Your task to perform on an android device: toggle sleep mode Image 0: 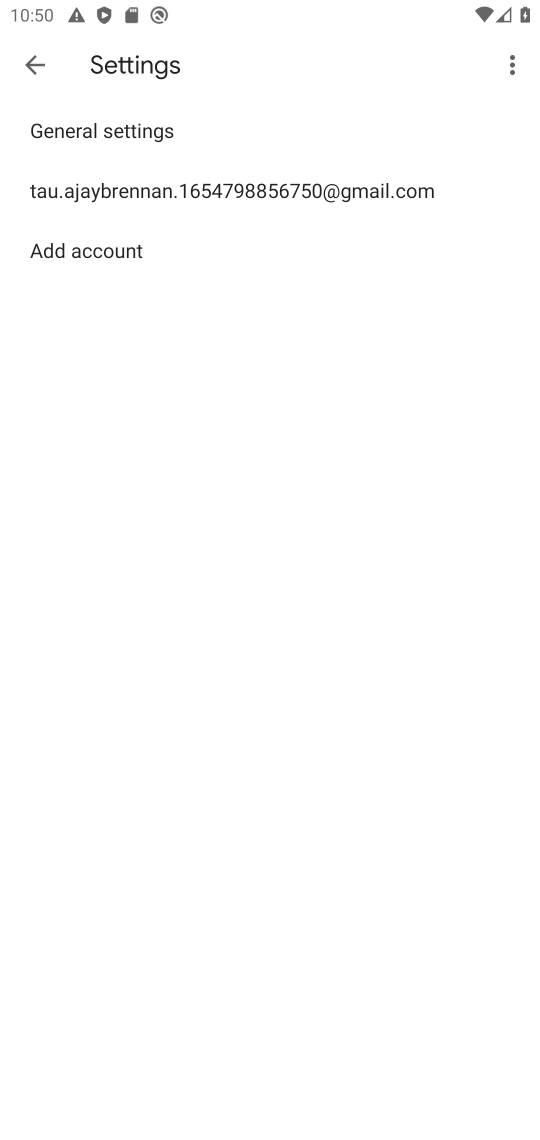
Step 0: press home button
Your task to perform on an android device: toggle sleep mode Image 1: 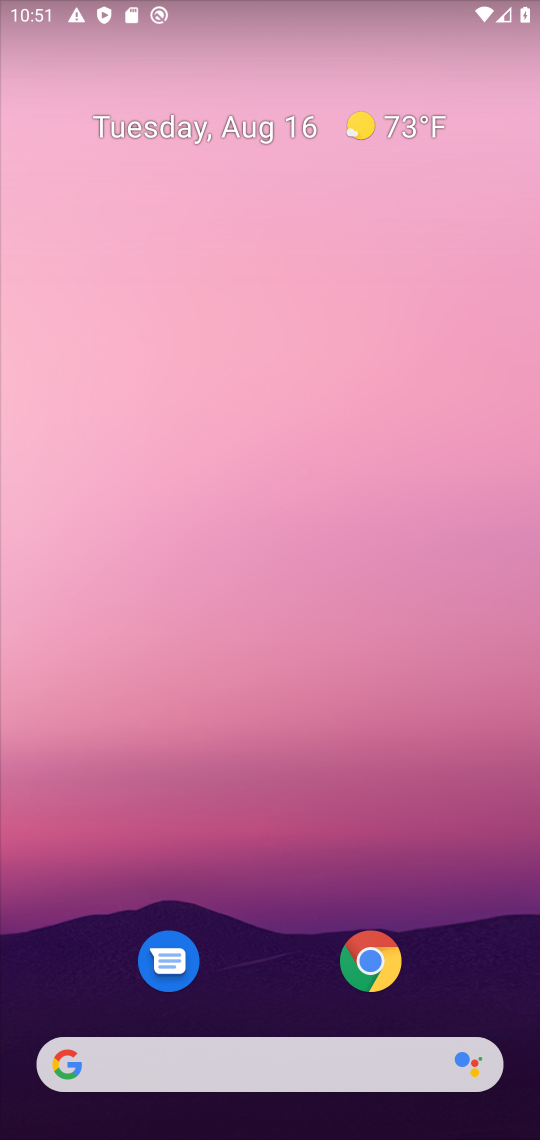
Step 1: task complete